Your task to perform on an android device: turn on bluetooth scan Image 0: 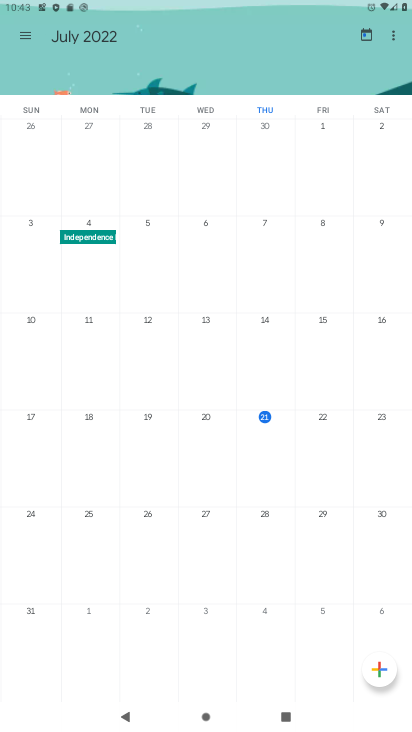
Step 0: press home button
Your task to perform on an android device: turn on bluetooth scan Image 1: 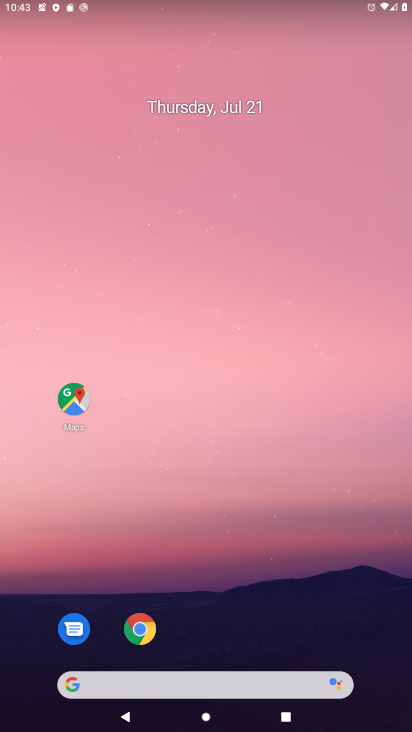
Step 1: drag from (217, 623) to (261, 98)
Your task to perform on an android device: turn on bluetooth scan Image 2: 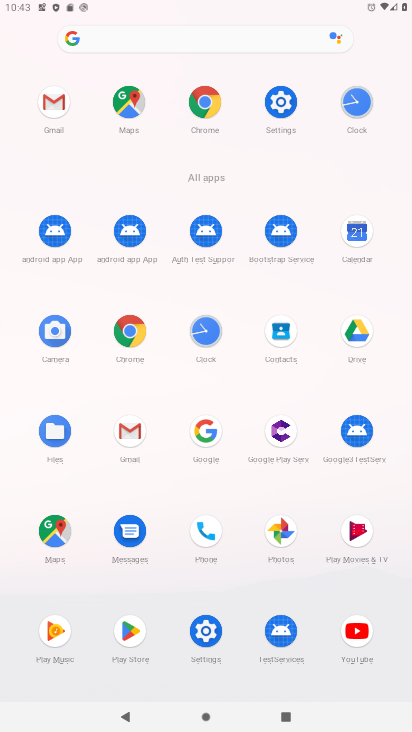
Step 2: click (201, 620)
Your task to perform on an android device: turn on bluetooth scan Image 3: 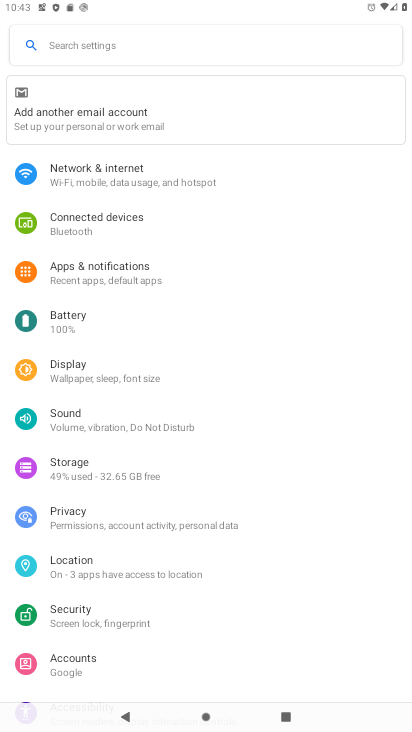
Step 3: click (64, 560)
Your task to perform on an android device: turn on bluetooth scan Image 4: 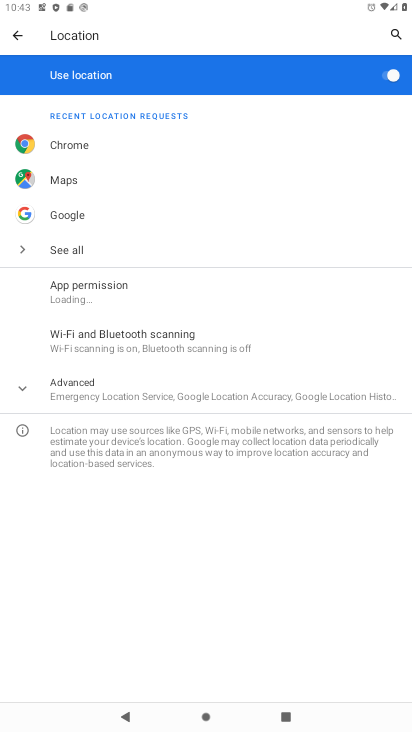
Step 4: click (145, 342)
Your task to perform on an android device: turn on bluetooth scan Image 5: 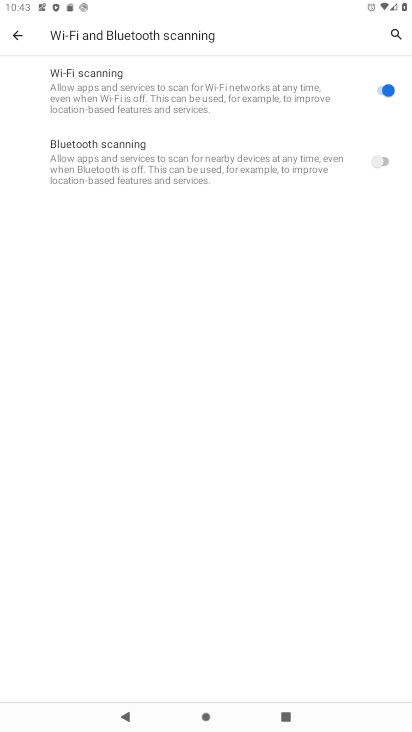
Step 5: click (291, 163)
Your task to perform on an android device: turn on bluetooth scan Image 6: 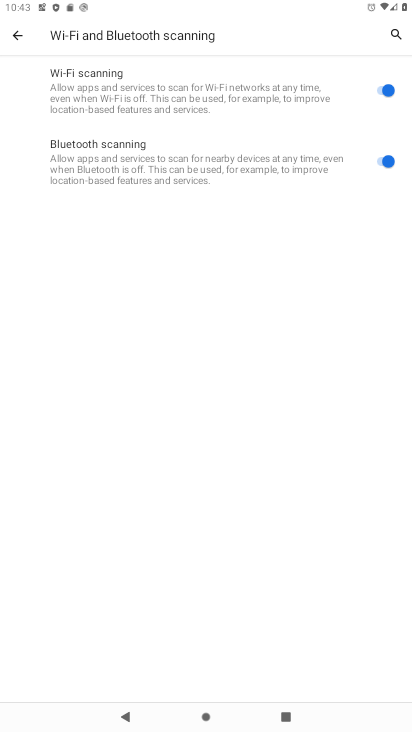
Step 6: task complete